Your task to perform on an android device: Turn on the flashlight Image 0: 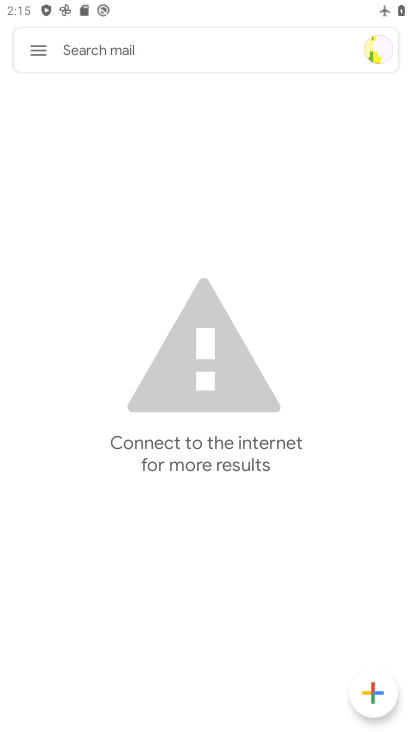
Step 0: press home button
Your task to perform on an android device: Turn on the flashlight Image 1: 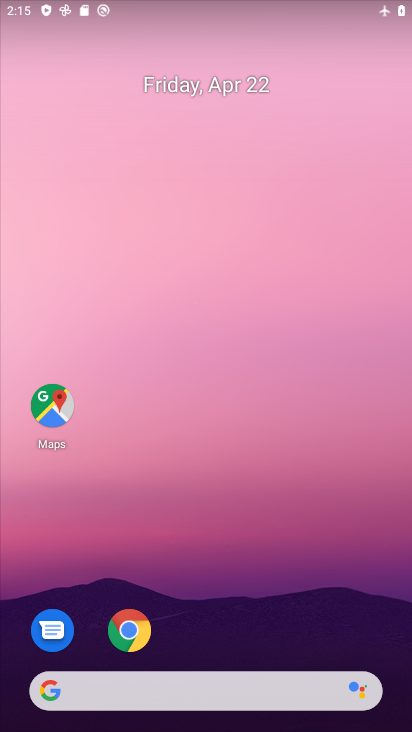
Step 1: drag from (303, 411) to (345, 89)
Your task to perform on an android device: Turn on the flashlight Image 2: 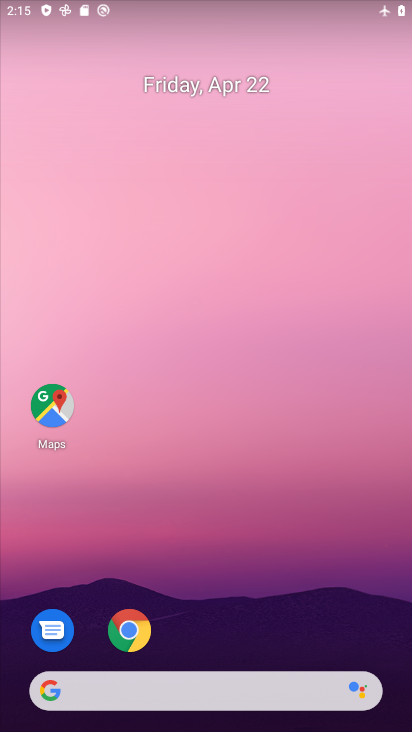
Step 2: drag from (295, 579) to (293, 109)
Your task to perform on an android device: Turn on the flashlight Image 3: 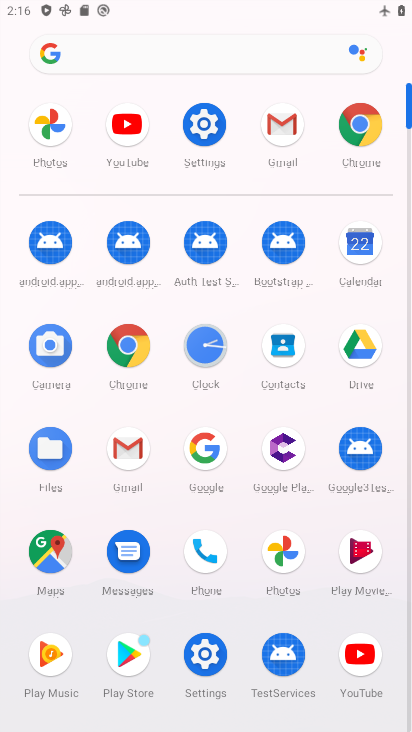
Step 3: click (202, 122)
Your task to perform on an android device: Turn on the flashlight Image 4: 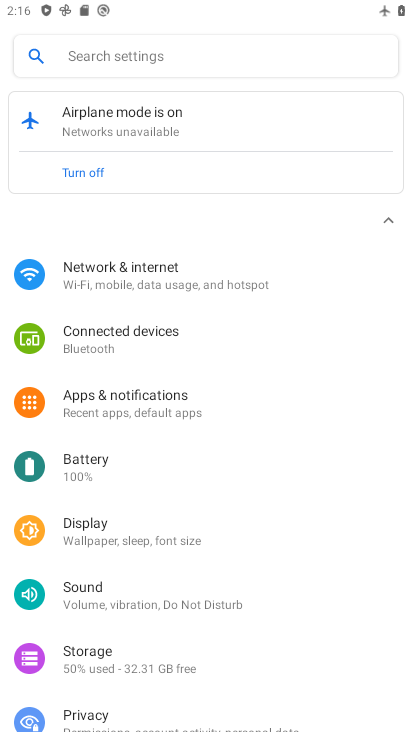
Step 4: click (174, 59)
Your task to perform on an android device: Turn on the flashlight Image 5: 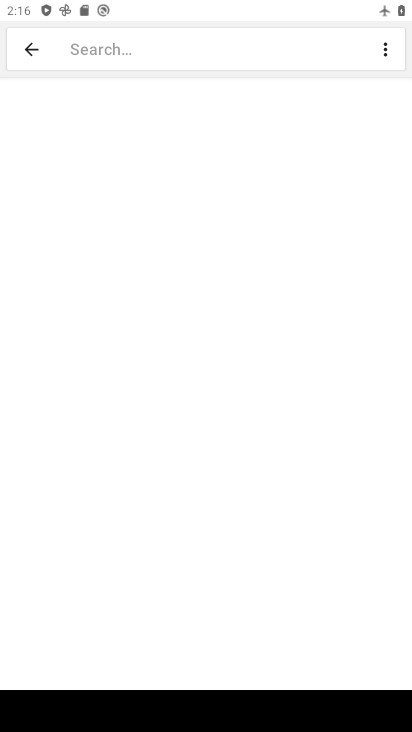
Step 5: type "flashlight"
Your task to perform on an android device: Turn on the flashlight Image 6: 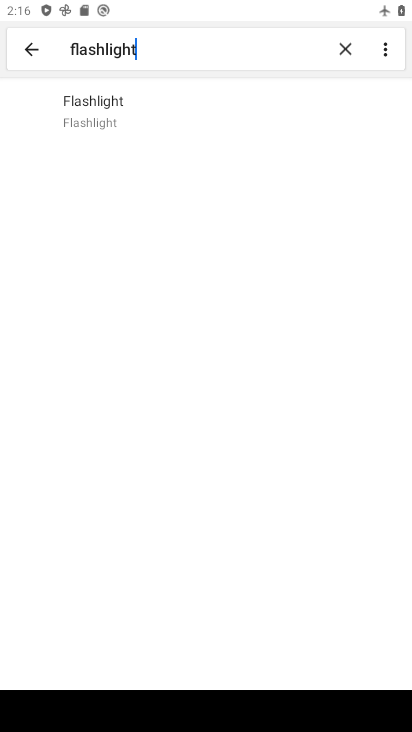
Step 6: click (120, 100)
Your task to perform on an android device: Turn on the flashlight Image 7: 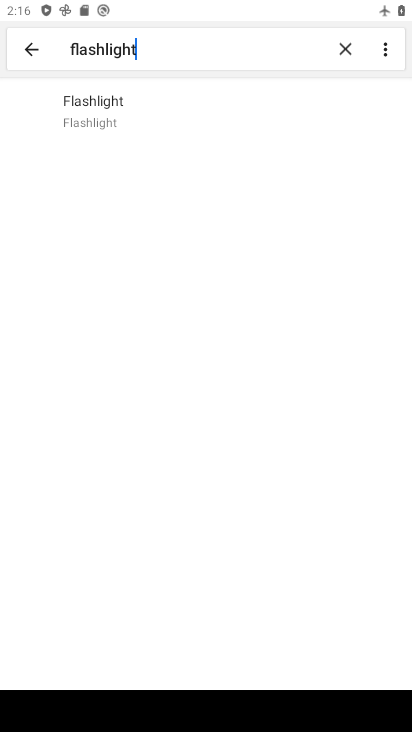
Step 7: task complete